Your task to perform on an android device: Is it going to rain tomorrow? Image 0: 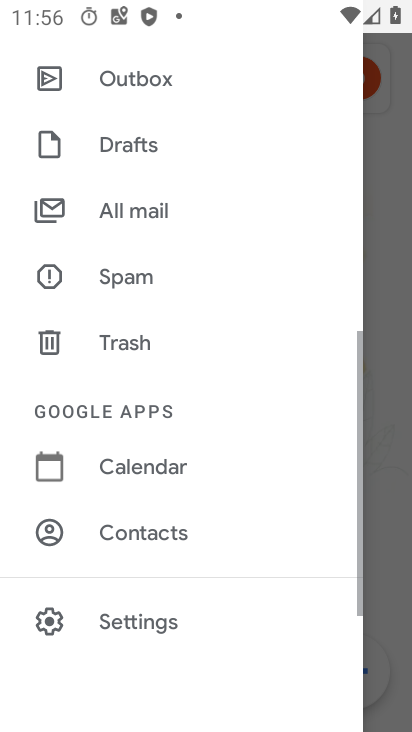
Step 0: press home button
Your task to perform on an android device: Is it going to rain tomorrow? Image 1: 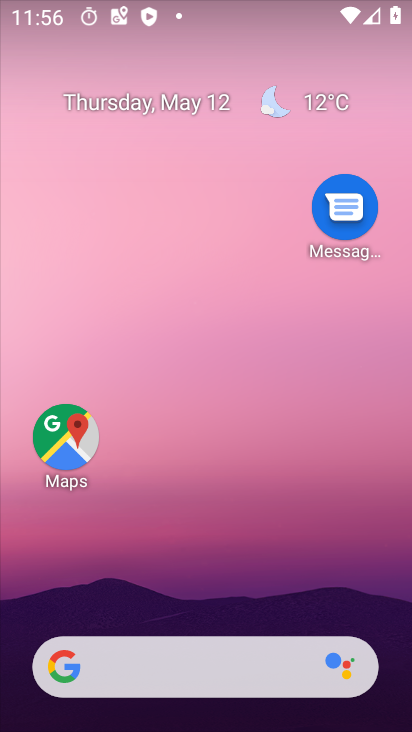
Step 1: drag from (171, 594) to (234, 33)
Your task to perform on an android device: Is it going to rain tomorrow? Image 2: 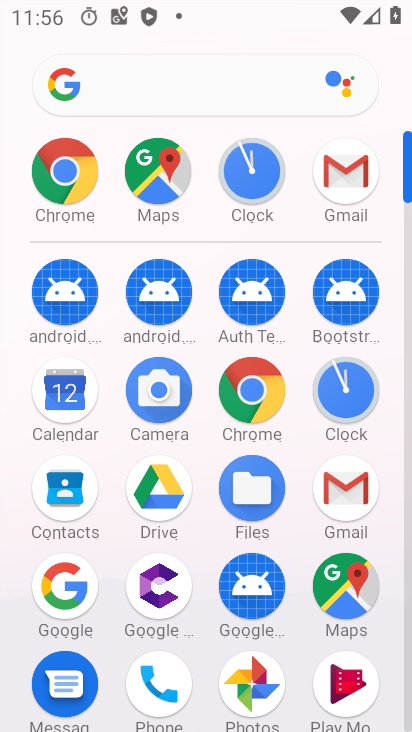
Step 2: click (39, 172)
Your task to perform on an android device: Is it going to rain tomorrow? Image 3: 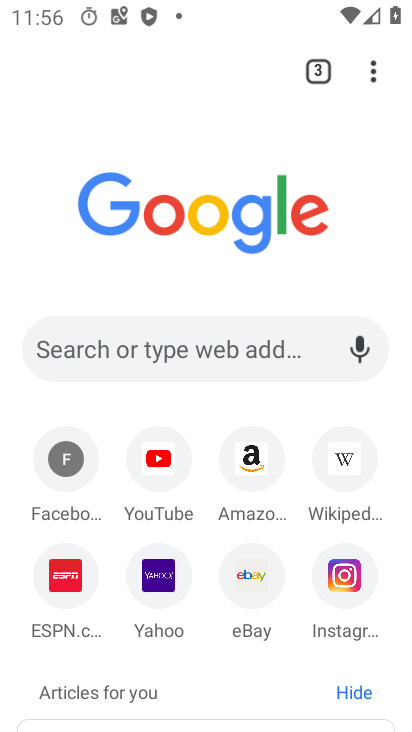
Step 3: click (198, 327)
Your task to perform on an android device: Is it going to rain tomorrow? Image 4: 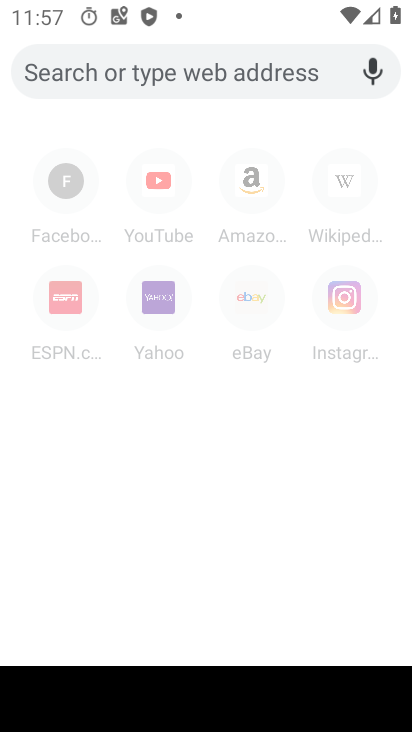
Step 4: type "Is it going to rain tomorrow?"
Your task to perform on an android device: Is it going to rain tomorrow? Image 5: 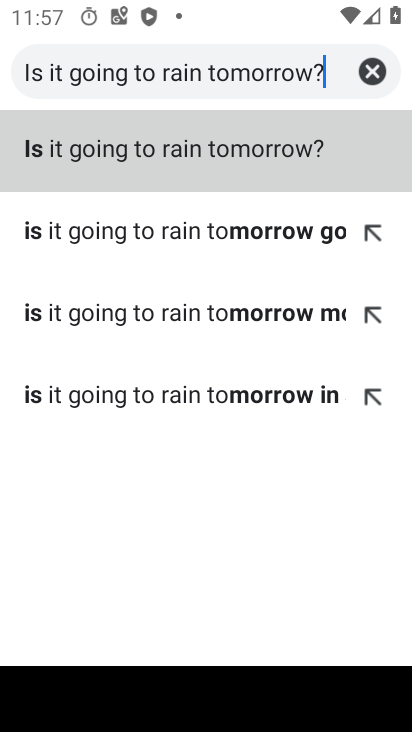
Step 5: click (79, 162)
Your task to perform on an android device: Is it going to rain tomorrow? Image 6: 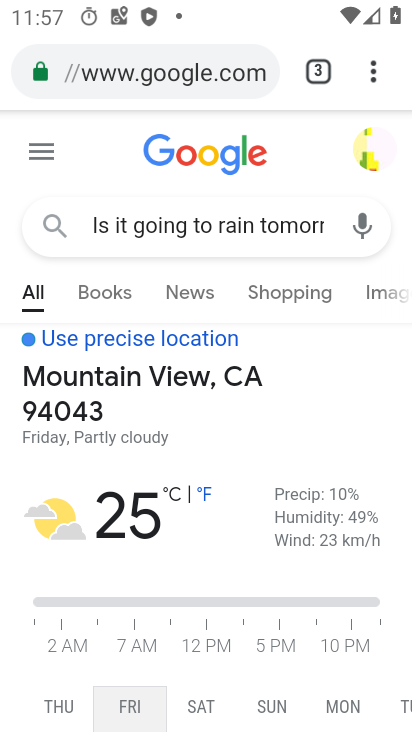
Step 6: task complete